Your task to perform on an android device: find photos in the google photos app Image 0: 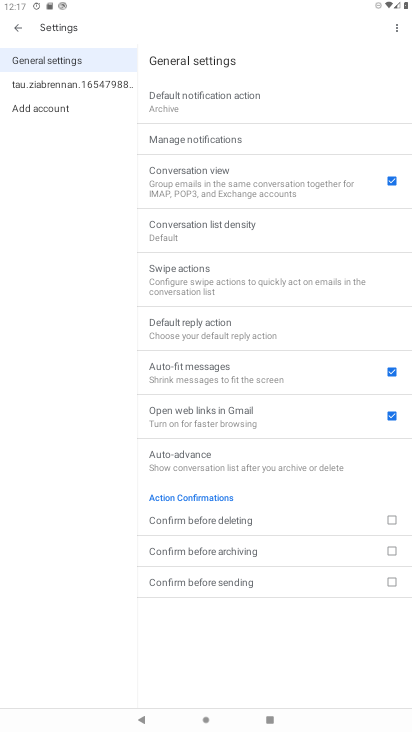
Step 0: press home button
Your task to perform on an android device: find photos in the google photos app Image 1: 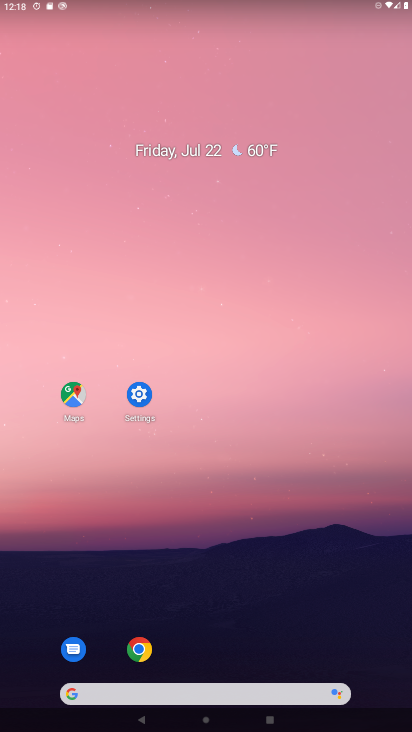
Step 1: drag from (377, 702) to (357, 83)
Your task to perform on an android device: find photos in the google photos app Image 2: 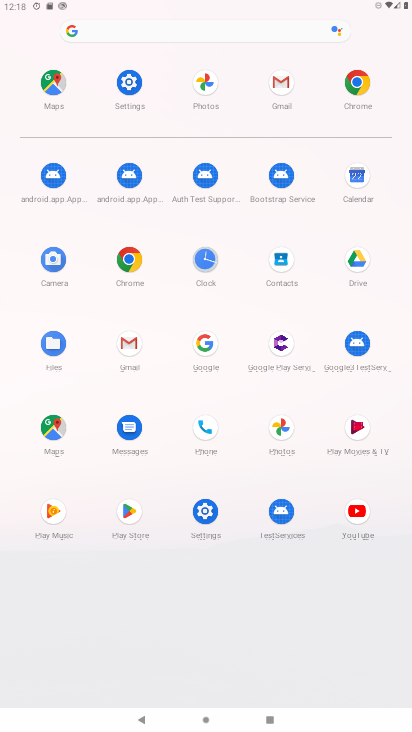
Step 2: click (279, 429)
Your task to perform on an android device: find photos in the google photos app Image 3: 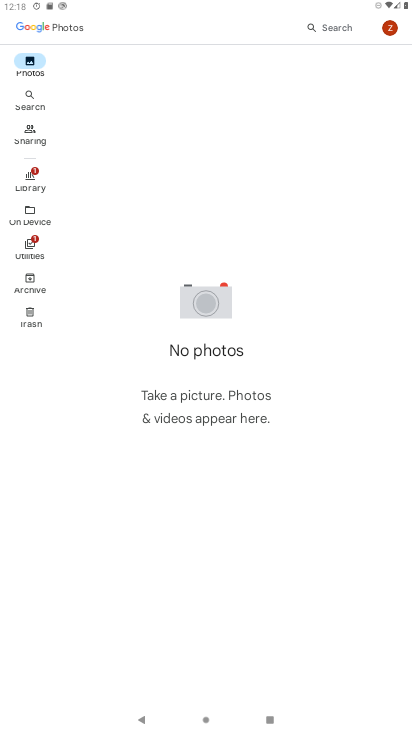
Step 3: task complete